Your task to perform on an android device: Go to location settings Image 0: 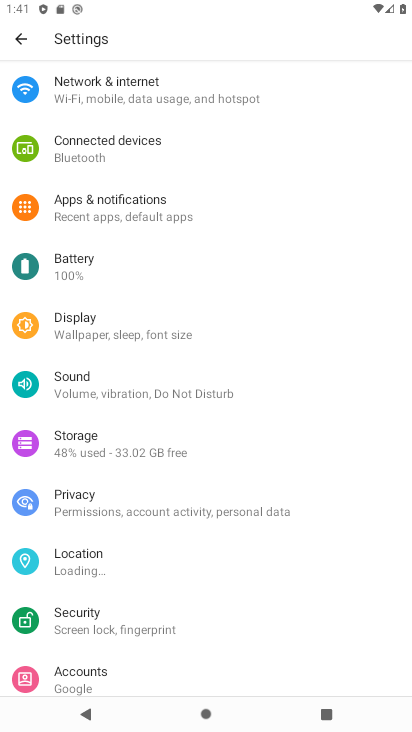
Step 0: press home button
Your task to perform on an android device: Go to location settings Image 1: 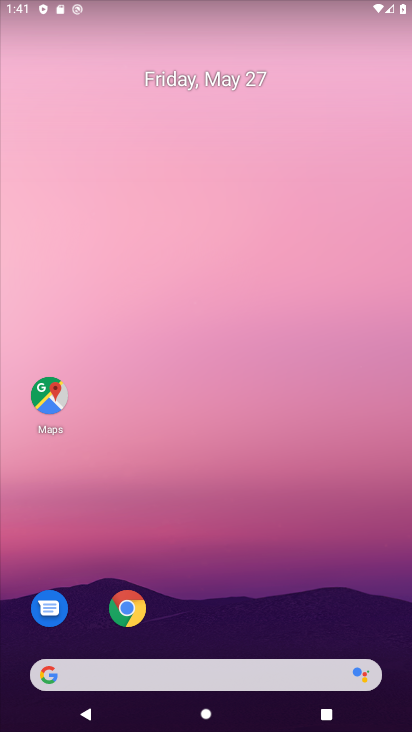
Step 1: drag from (262, 622) to (272, 147)
Your task to perform on an android device: Go to location settings Image 2: 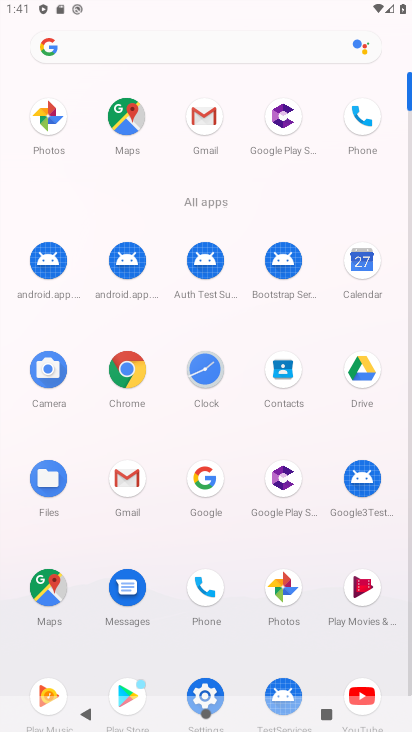
Step 2: drag from (244, 657) to (242, 496)
Your task to perform on an android device: Go to location settings Image 3: 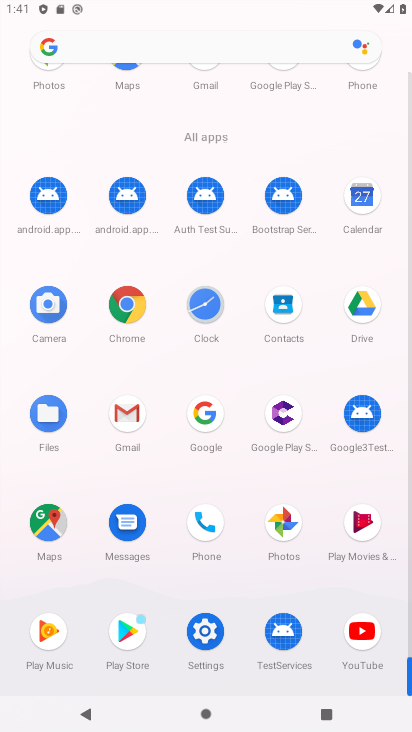
Step 3: click (209, 626)
Your task to perform on an android device: Go to location settings Image 4: 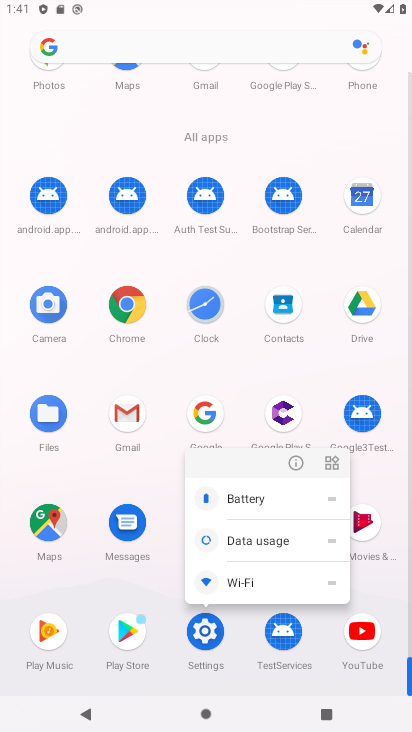
Step 4: click (202, 630)
Your task to perform on an android device: Go to location settings Image 5: 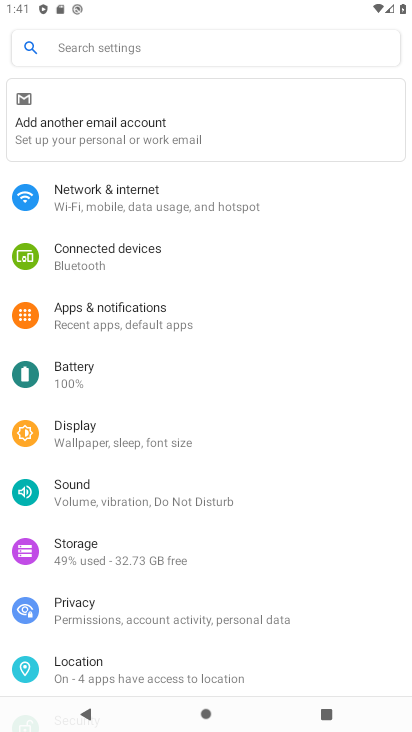
Step 5: click (144, 667)
Your task to perform on an android device: Go to location settings Image 6: 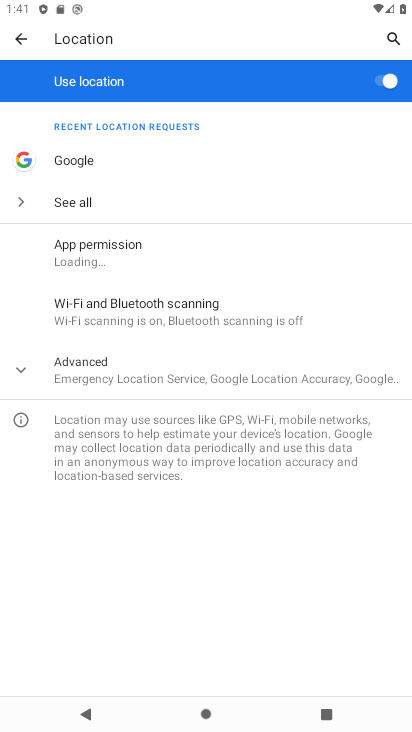
Step 6: task complete